Your task to perform on an android device: What's the weather? Image 0: 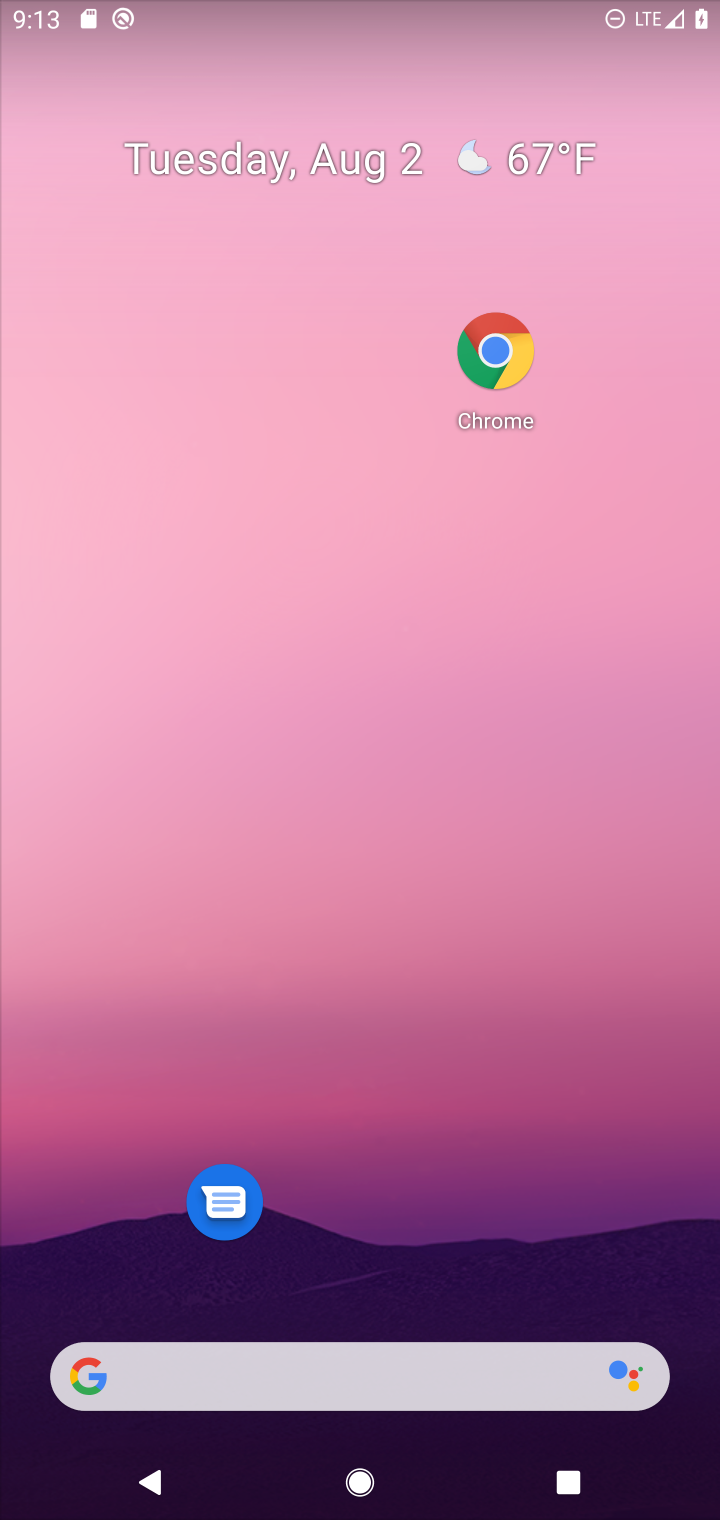
Step 0: click (539, 163)
Your task to perform on an android device: What's the weather? Image 1: 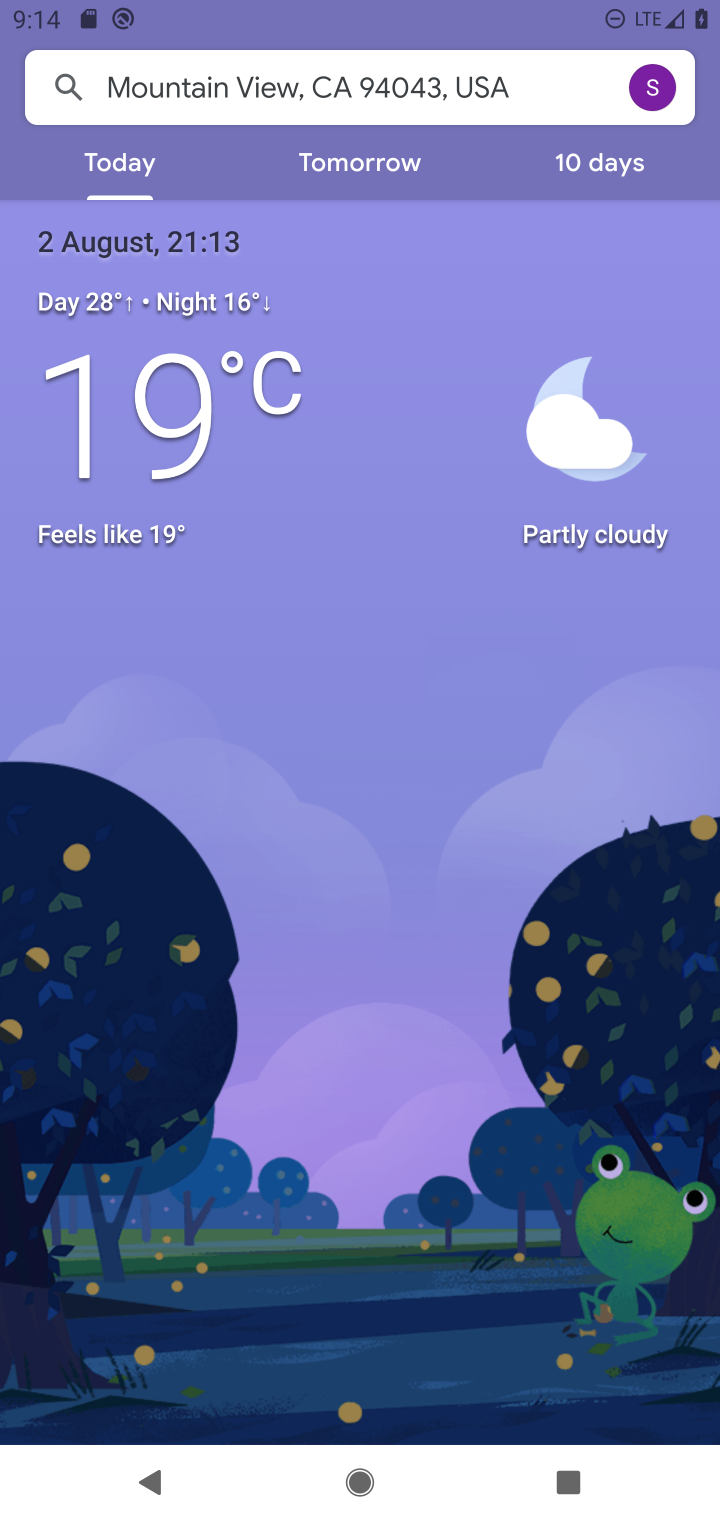
Step 1: task complete